Your task to perform on an android device: Show me popular games on the Play Store Image 0: 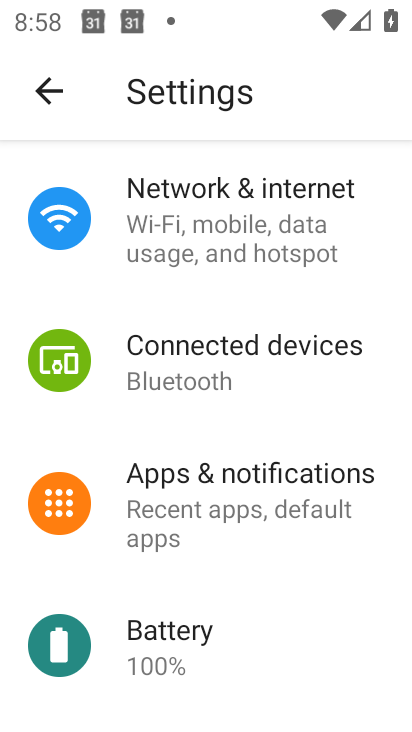
Step 0: press home button
Your task to perform on an android device: Show me popular games on the Play Store Image 1: 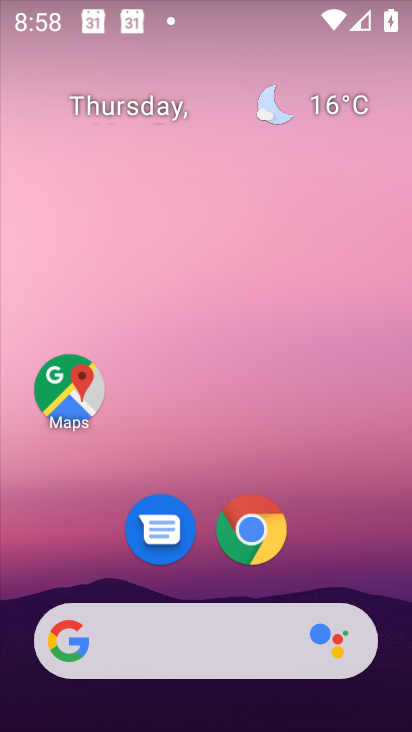
Step 1: drag from (358, 549) to (252, 58)
Your task to perform on an android device: Show me popular games on the Play Store Image 2: 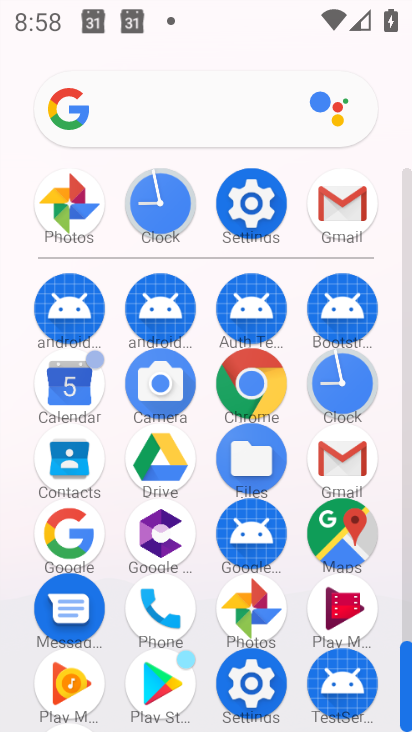
Step 2: click (156, 693)
Your task to perform on an android device: Show me popular games on the Play Store Image 3: 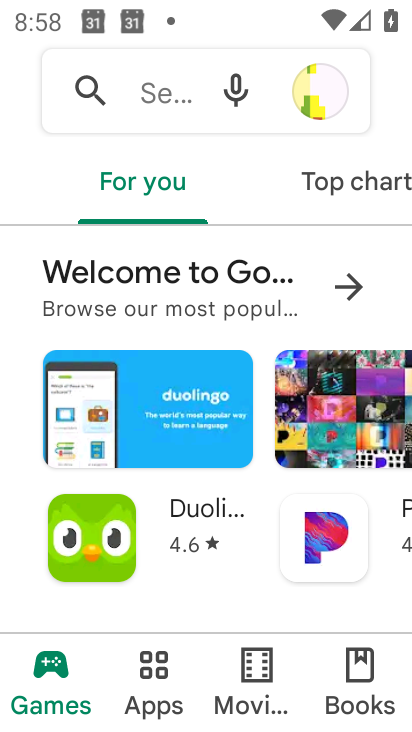
Step 3: task complete